Your task to perform on an android device: Open the calendar app, open the side menu, and click the "Day" option Image 0: 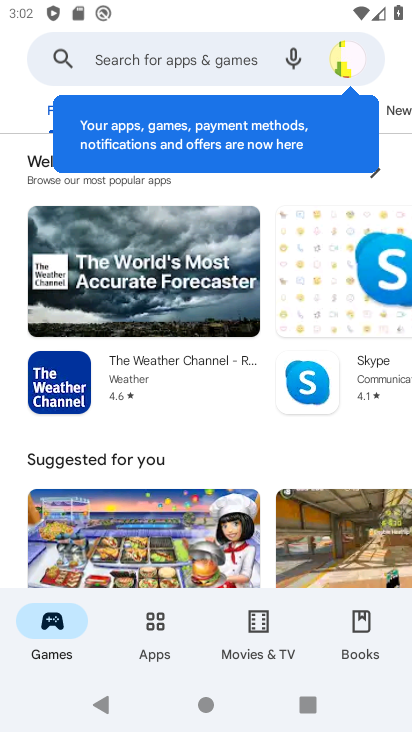
Step 0: press back button
Your task to perform on an android device: Open the calendar app, open the side menu, and click the "Day" option Image 1: 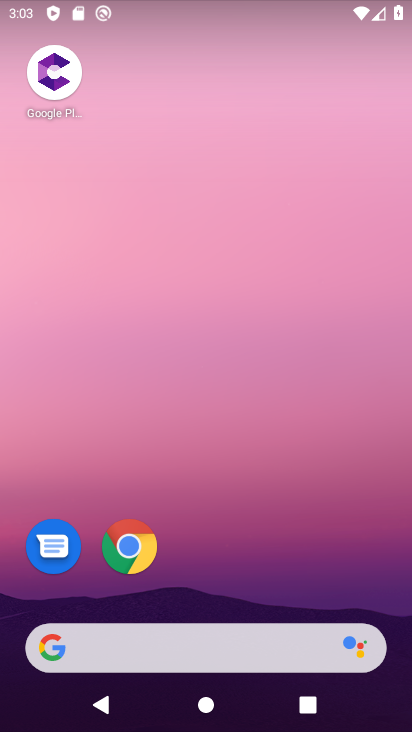
Step 1: drag from (278, 671) to (158, 33)
Your task to perform on an android device: Open the calendar app, open the side menu, and click the "Day" option Image 2: 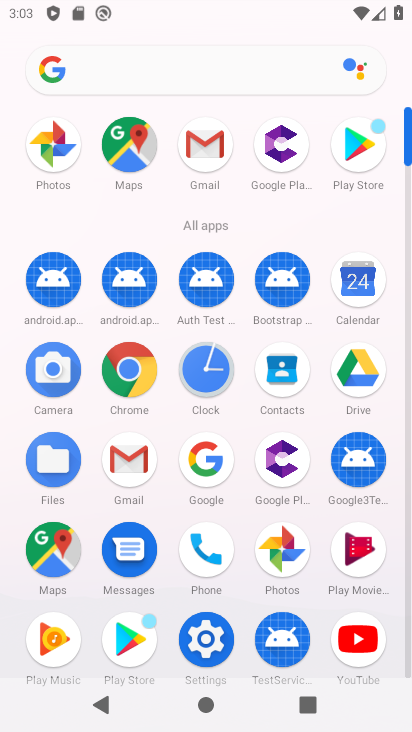
Step 2: click (352, 276)
Your task to perform on an android device: Open the calendar app, open the side menu, and click the "Day" option Image 3: 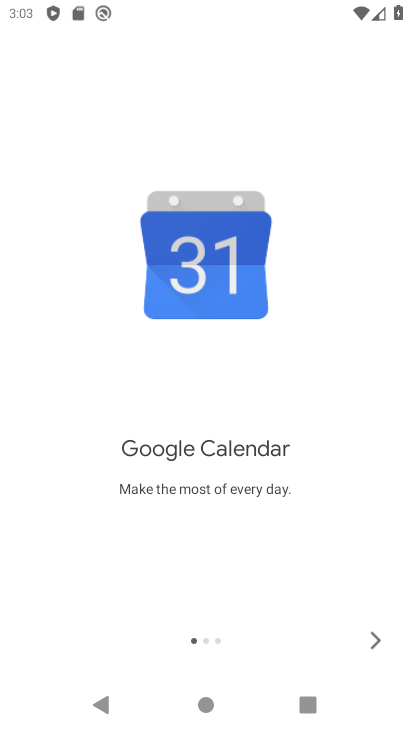
Step 3: click (375, 633)
Your task to perform on an android device: Open the calendar app, open the side menu, and click the "Day" option Image 4: 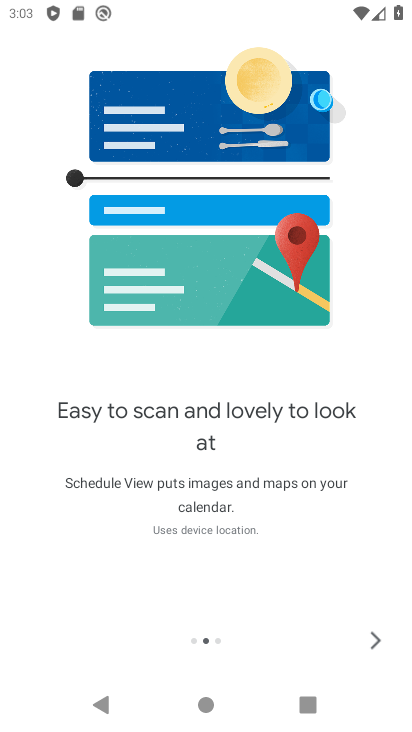
Step 4: click (365, 639)
Your task to perform on an android device: Open the calendar app, open the side menu, and click the "Day" option Image 5: 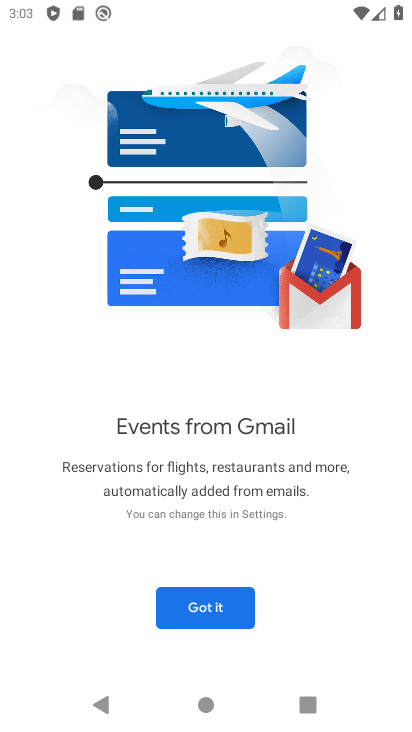
Step 5: click (197, 591)
Your task to perform on an android device: Open the calendar app, open the side menu, and click the "Day" option Image 6: 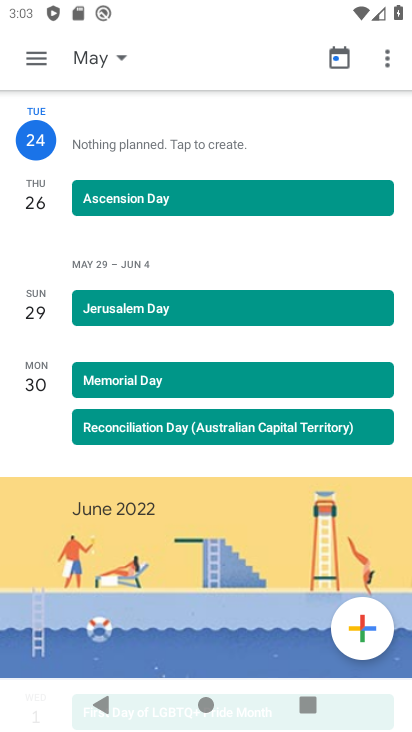
Step 6: click (31, 59)
Your task to perform on an android device: Open the calendar app, open the side menu, and click the "Day" option Image 7: 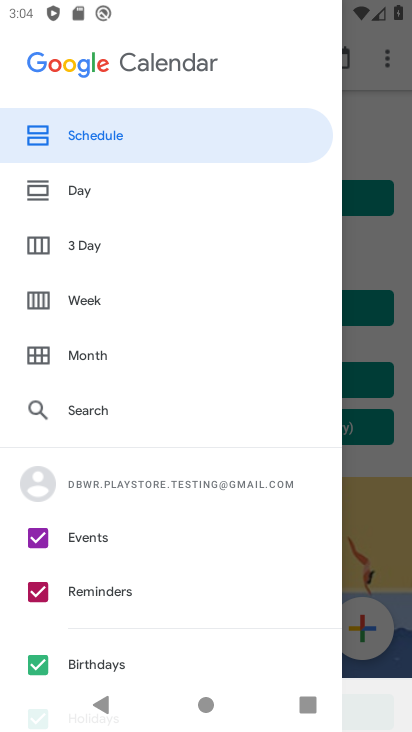
Step 7: click (80, 192)
Your task to perform on an android device: Open the calendar app, open the side menu, and click the "Day" option Image 8: 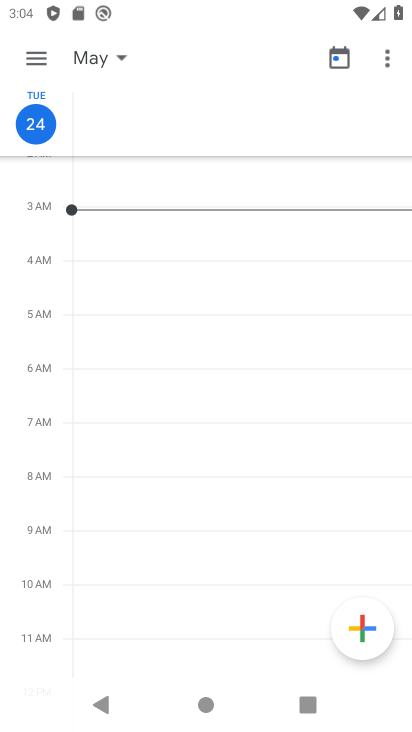
Step 8: task complete